Your task to perform on an android device: change your default location settings in chrome Image 0: 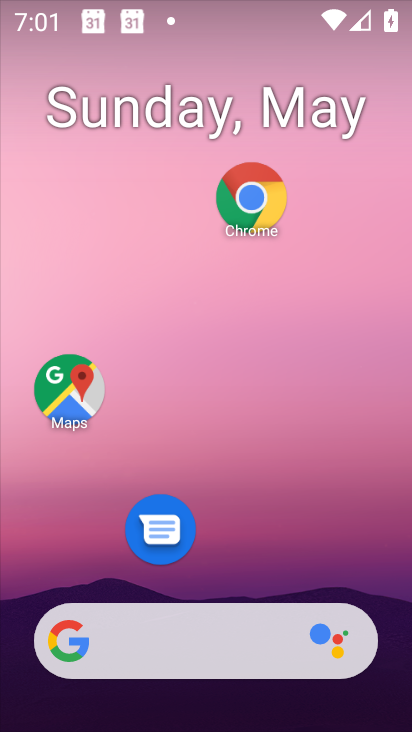
Step 0: drag from (238, 541) to (289, 134)
Your task to perform on an android device: change your default location settings in chrome Image 1: 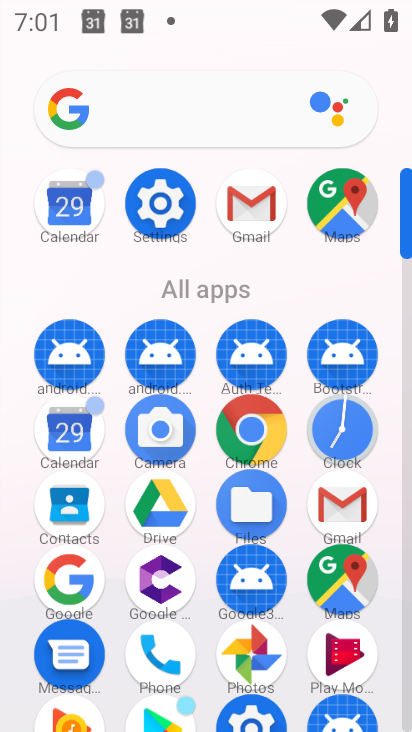
Step 1: click (241, 418)
Your task to perform on an android device: change your default location settings in chrome Image 2: 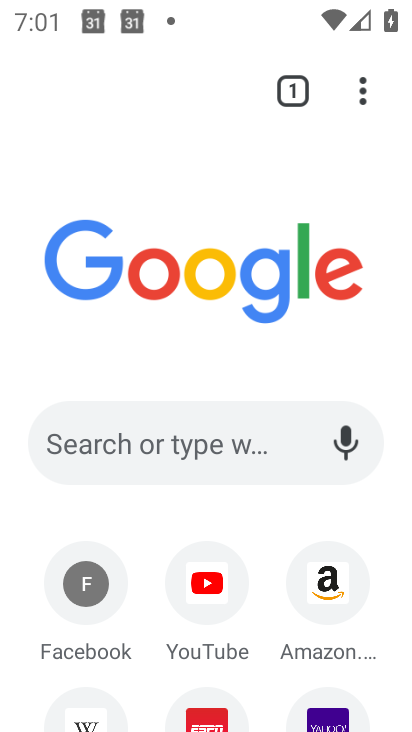
Step 2: click (361, 95)
Your task to perform on an android device: change your default location settings in chrome Image 3: 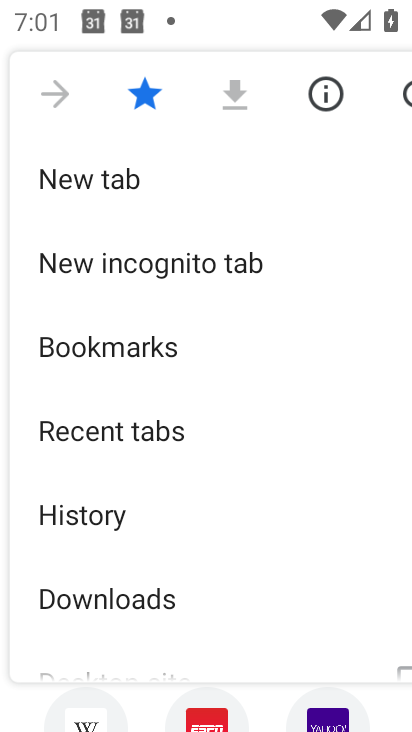
Step 3: drag from (87, 569) to (141, 367)
Your task to perform on an android device: change your default location settings in chrome Image 4: 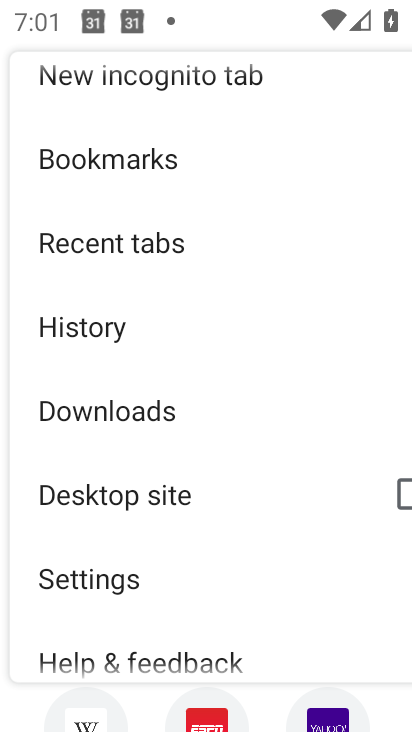
Step 4: click (97, 587)
Your task to perform on an android device: change your default location settings in chrome Image 5: 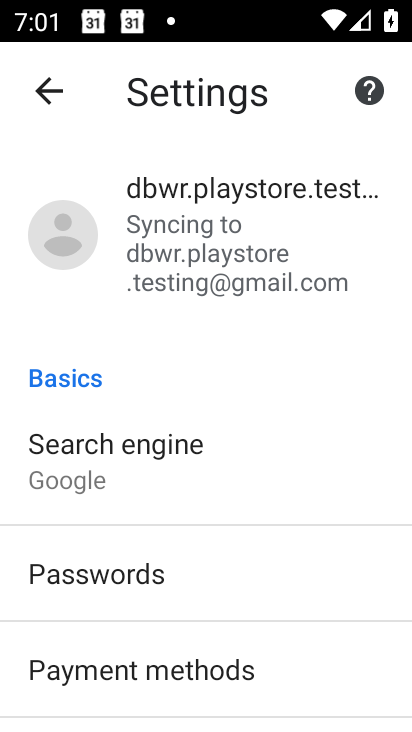
Step 5: drag from (151, 635) to (176, 318)
Your task to perform on an android device: change your default location settings in chrome Image 6: 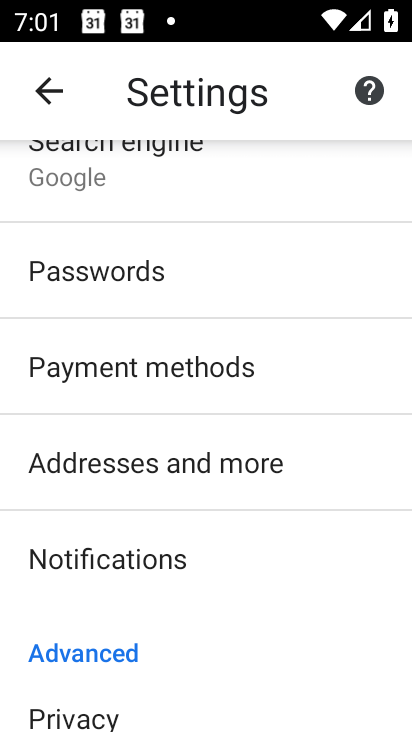
Step 6: drag from (167, 674) to (273, 263)
Your task to perform on an android device: change your default location settings in chrome Image 7: 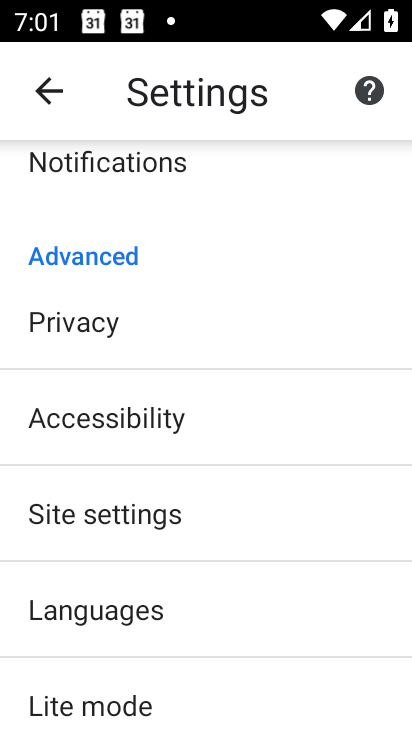
Step 7: drag from (145, 660) to (192, 319)
Your task to perform on an android device: change your default location settings in chrome Image 8: 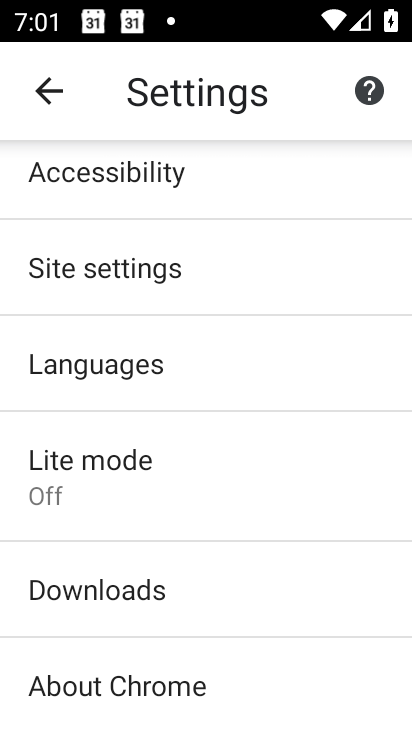
Step 8: click (154, 289)
Your task to perform on an android device: change your default location settings in chrome Image 9: 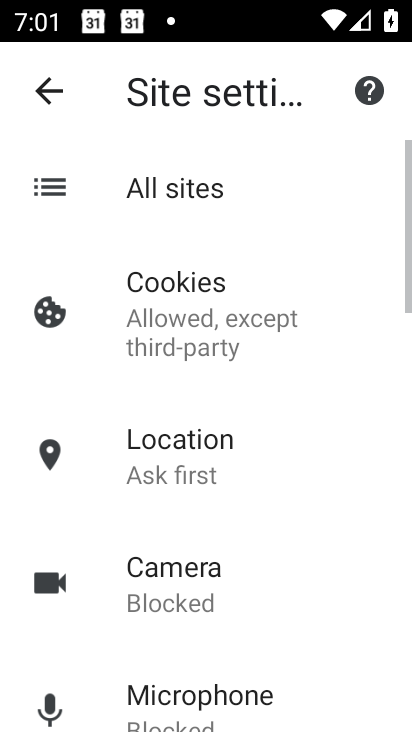
Step 9: click (123, 451)
Your task to perform on an android device: change your default location settings in chrome Image 10: 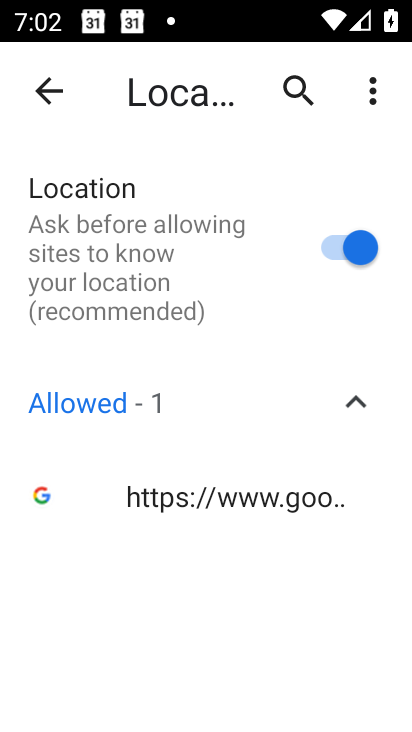
Step 10: task complete